Your task to perform on an android device: change the clock display to analog Image 0: 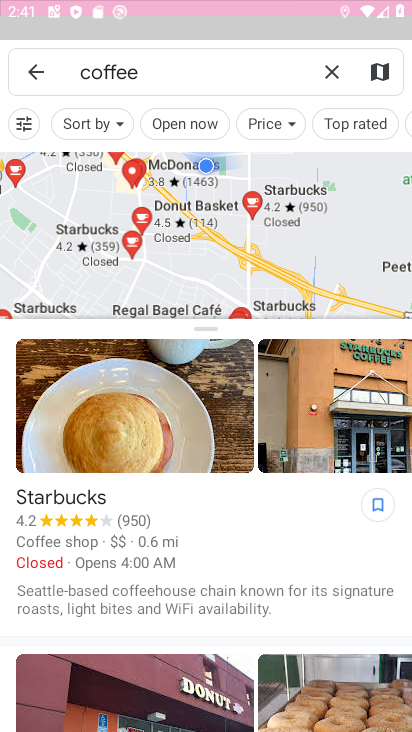
Step 0: click (254, 153)
Your task to perform on an android device: change the clock display to analog Image 1: 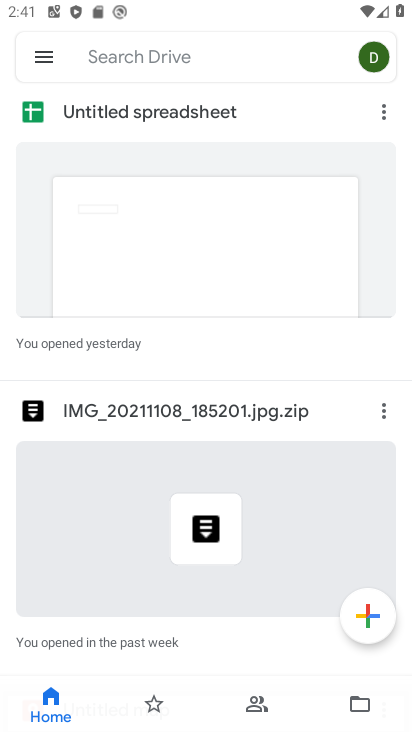
Step 1: press home button
Your task to perform on an android device: change the clock display to analog Image 2: 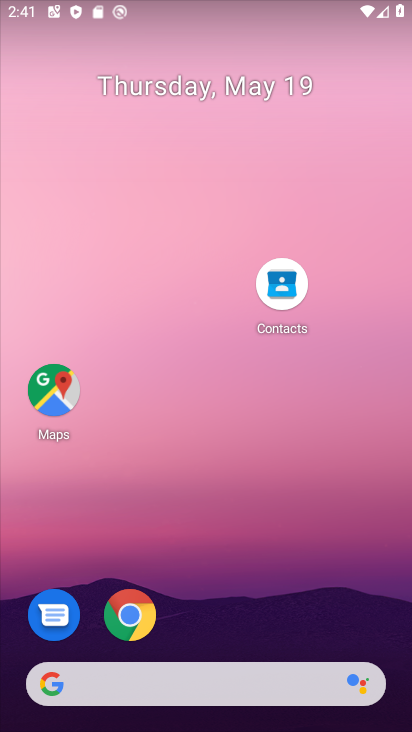
Step 2: drag from (331, 669) to (316, 89)
Your task to perform on an android device: change the clock display to analog Image 3: 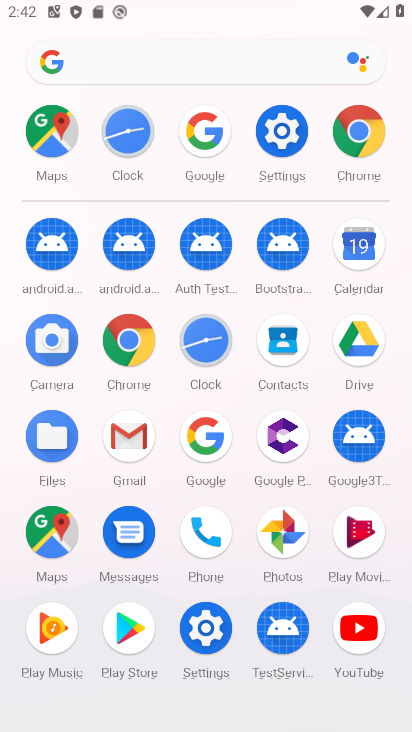
Step 3: click (220, 352)
Your task to perform on an android device: change the clock display to analog Image 4: 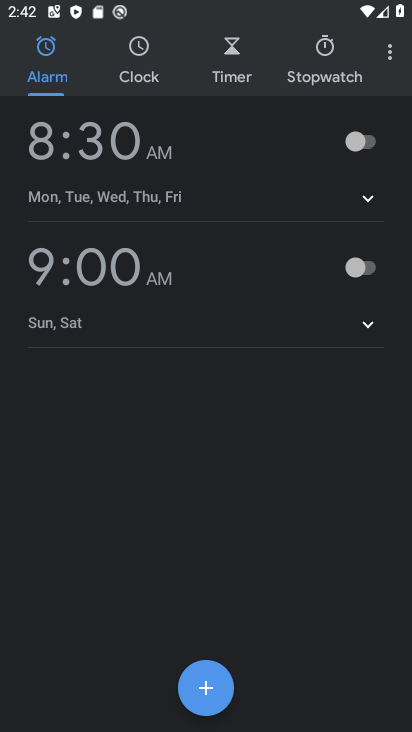
Step 4: click (382, 62)
Your task to perform on an android device: change the clock display to analog Image 5: 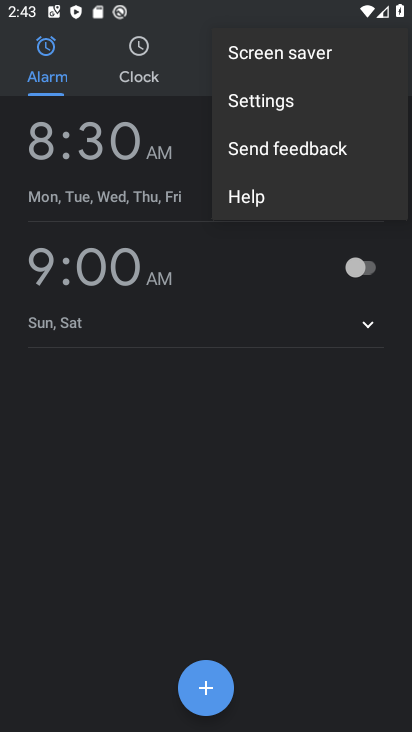
Step 5: click (297, 108)
Your task to perform on an android device: change the clock display to analog Image 6: 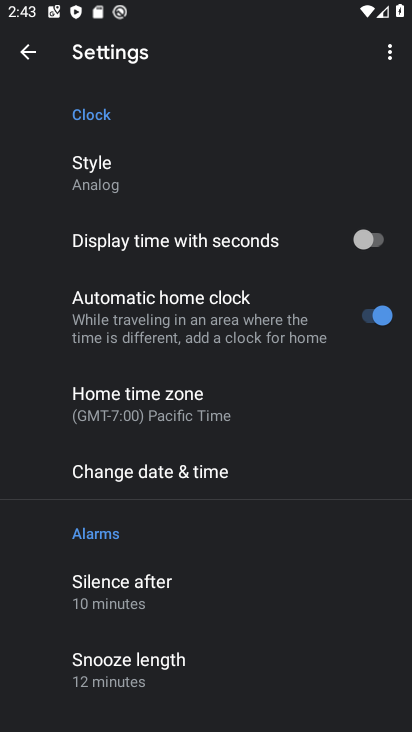
Step 6: task complete